Your task to perform on an android device: Open the stopwatch Image 0: 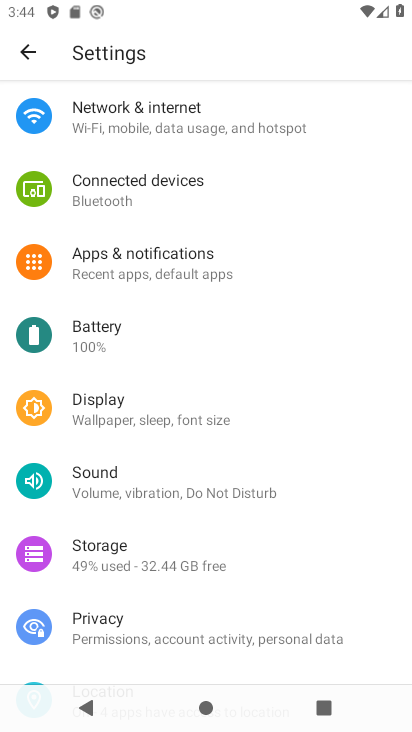
Step 0: press home button
Your task to perform on an android device: Open the stopwatch Image 1: 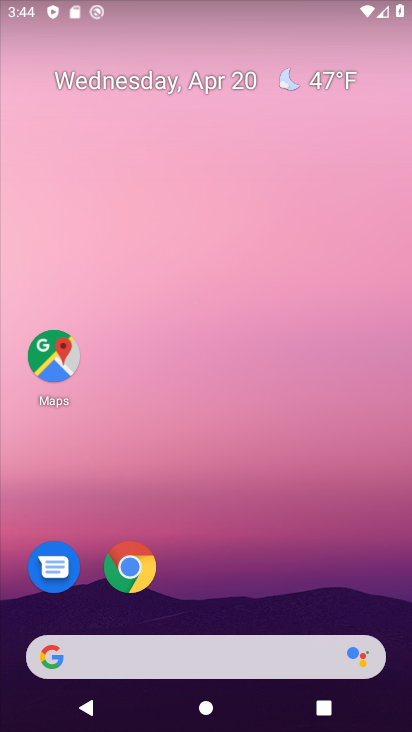
Step 1: drag from (184, 601) to (187, 217)
Your task to perform on an android device: Open the stopwatch Image 2: 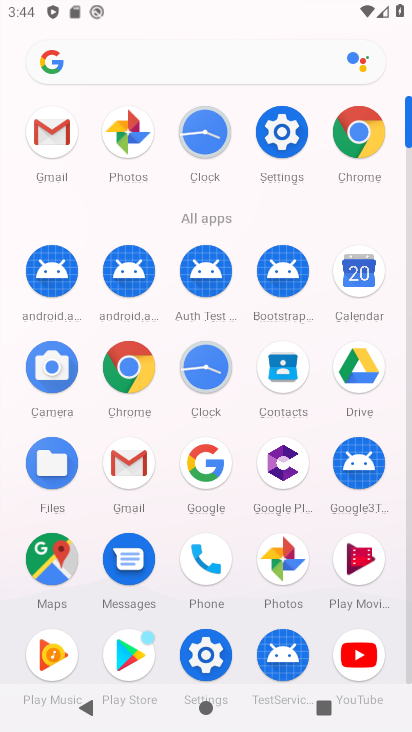
Step 2: click (209, 366)
Your task to perform on an android device: Open the stopwatch Image 3: 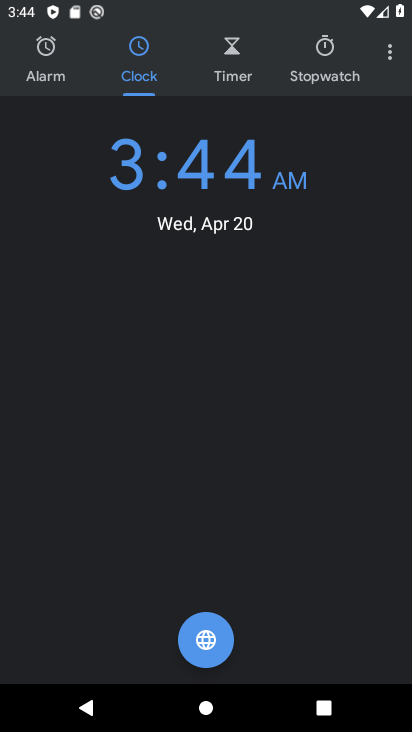
Step 3: click (341, 42)
Your task to perform on an android device: Open the stopwatch Image 4: 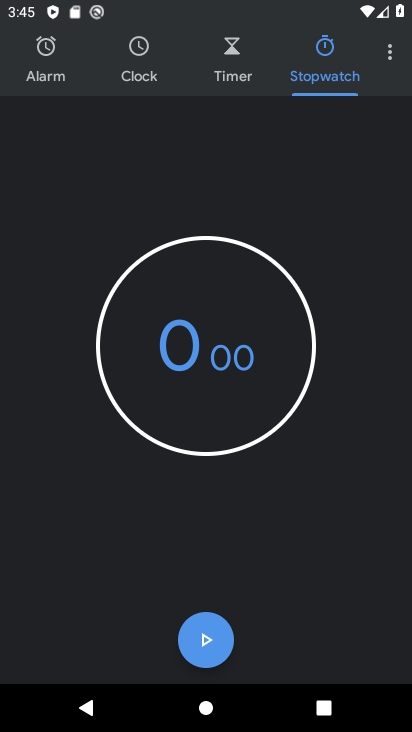
Step 4: task complete